Your task to perform on an android device: Do I have any events this weekend? Image 0: 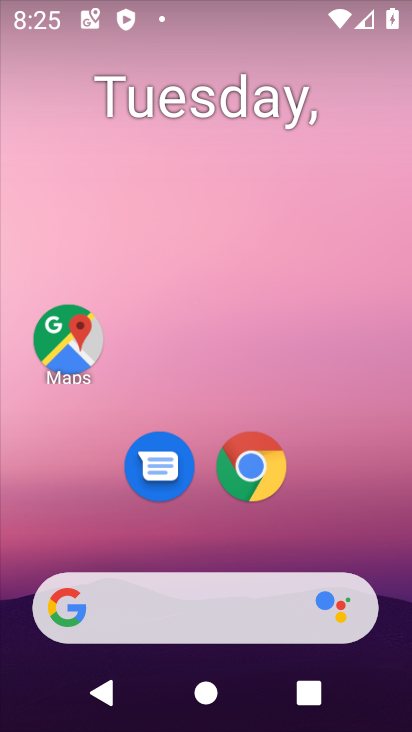
Step 0: drag from (380, 528) to (356, 71)
Your task to perform on an android device: Do I have any events this weekend? Image 1: 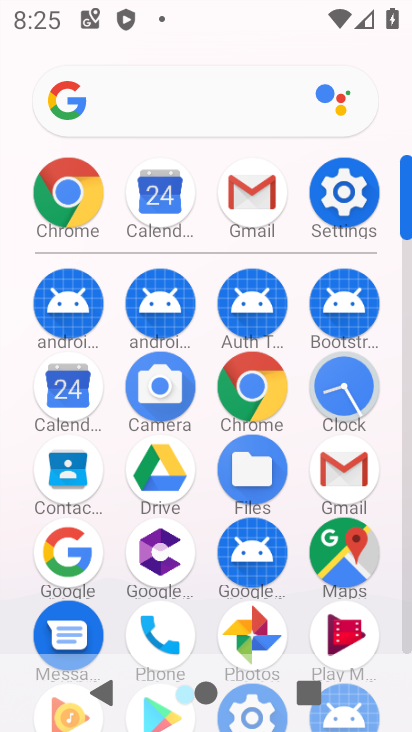
Step 1: click (150, 228)
Your task to perform on an android device: Do I have any events this weekend? Image 2: 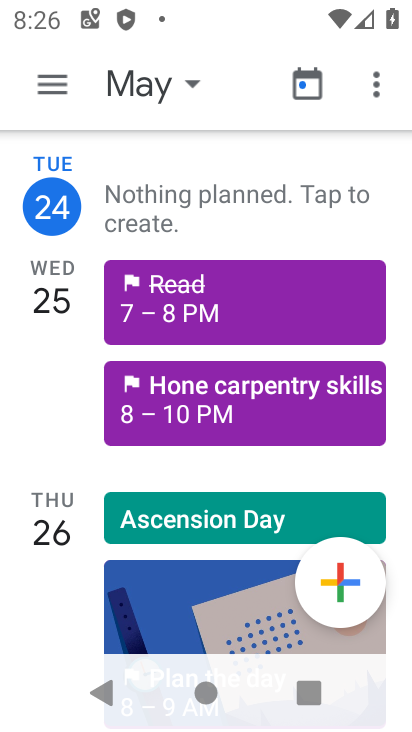
Step 2: task complete